Your task to perform on an android device: Go to Reddit.com Image 0: 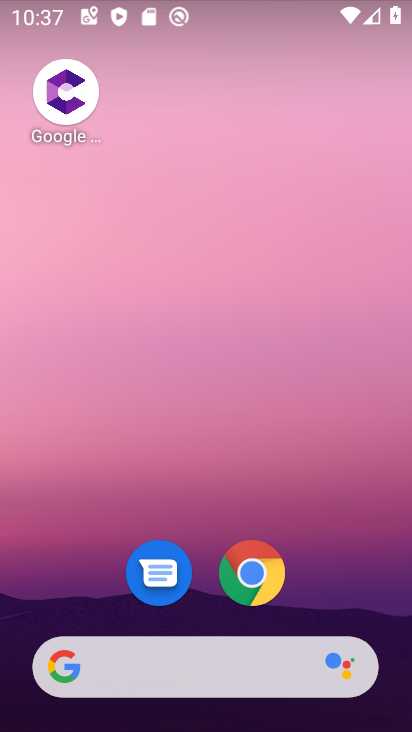
Step 0: drag from (319, 549) to (319, 0)
Your task to perform on an android device: Go to Reddit.com Image 1: 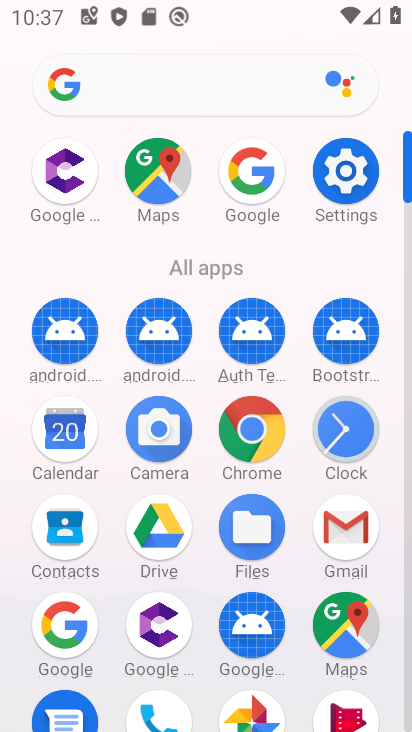
Step 1: click (253, 433)
Your task to perform on an android device: Go to Reddit.com Image 2: 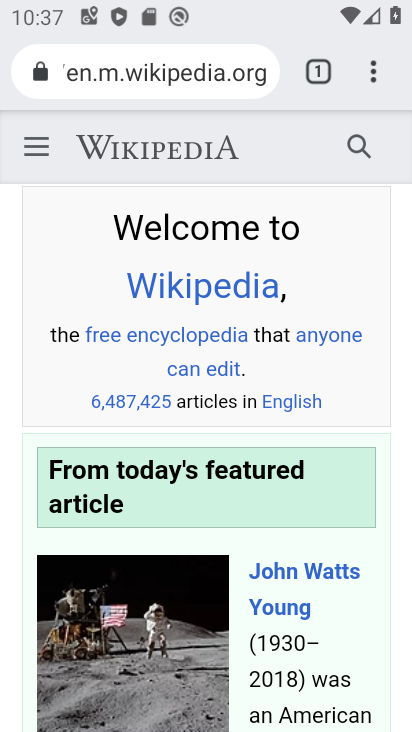
Step 2: click (254, 80)
Your task to perform on an android device: Go to Reddit.com Image 3: 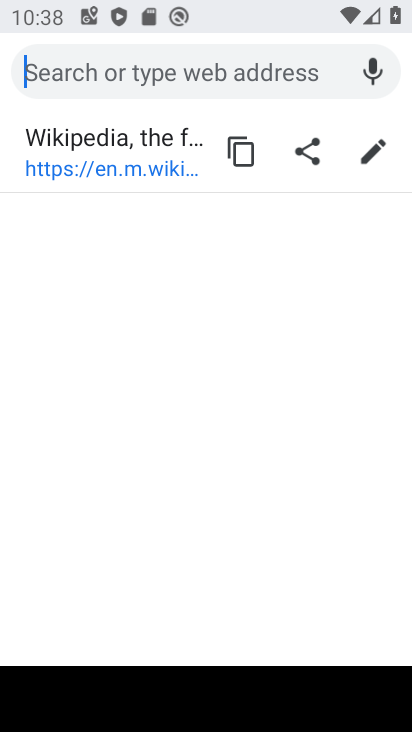
Step 3: type "Reddit.com"
Your task to perform on an android device: Go to Reddit.com Image 4: 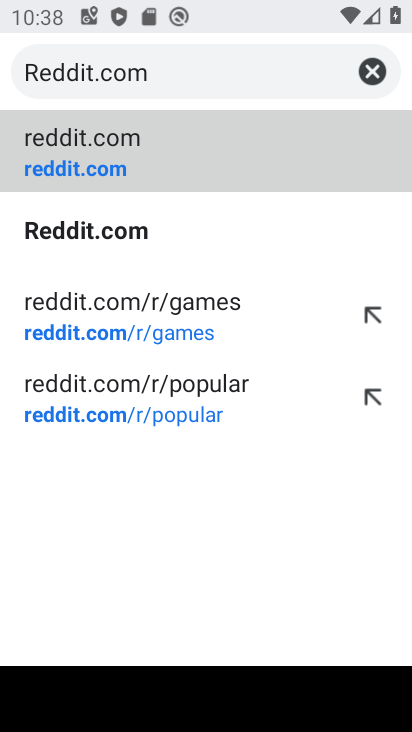
Step 4: click (95, 165)
Your task to perform on an android device: Go to Reddit.com Image 5: 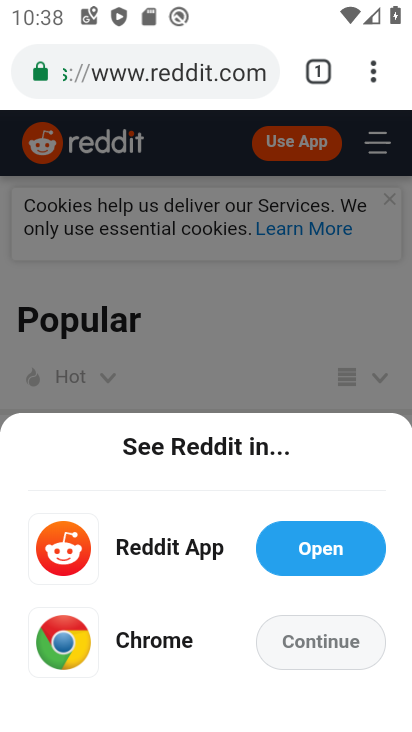
Step 5: click (312, 643)
Your task to perform on an android device: Go to Reddit.com Image 6: 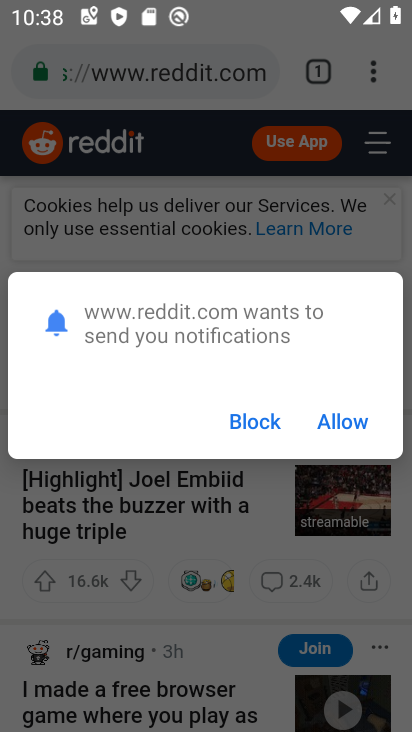
Step 6: click (347, 432)
Your task to perform on an android device: Go to Reddit.com Image 7: 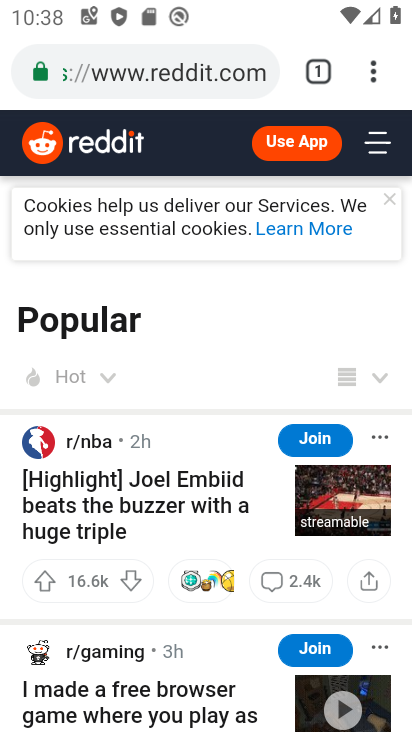
Step 7: task complete